Your task to perform on an android device: turn off location history Image 0: 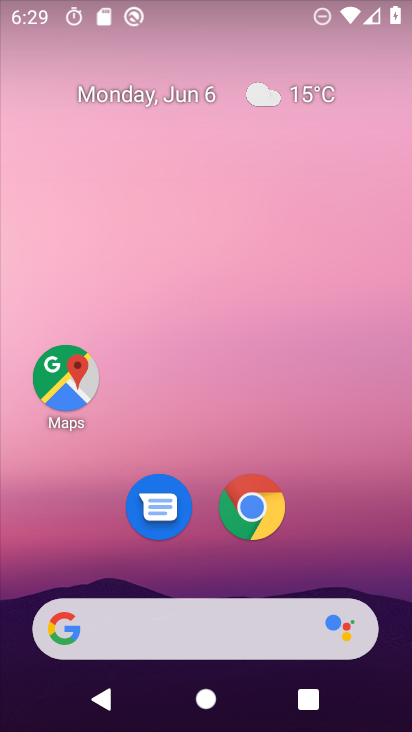
Step 0: drag from (192, 568) to (255, 2)
Your task to perform on an android device: turn off location history Image 1: 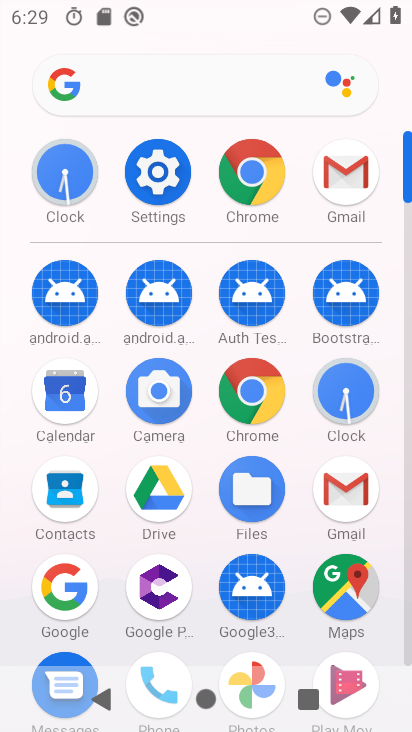
Step 1: click (168, 178)
Your task to perform on an android device: turn off location history Image 2: 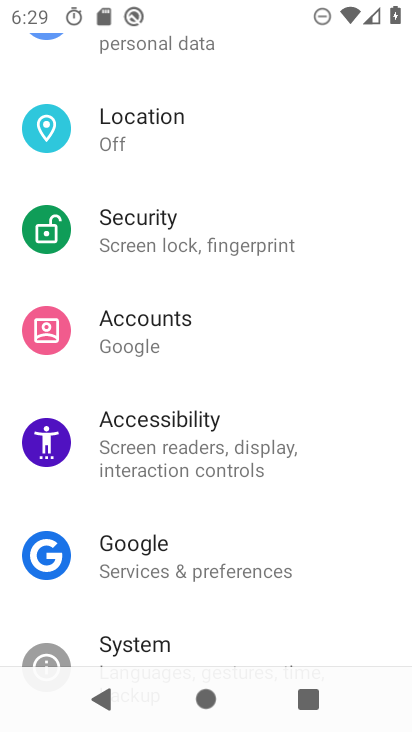
Step 2: click (133, 144)
Your task to perform on an android device: turn off location history Image 3: 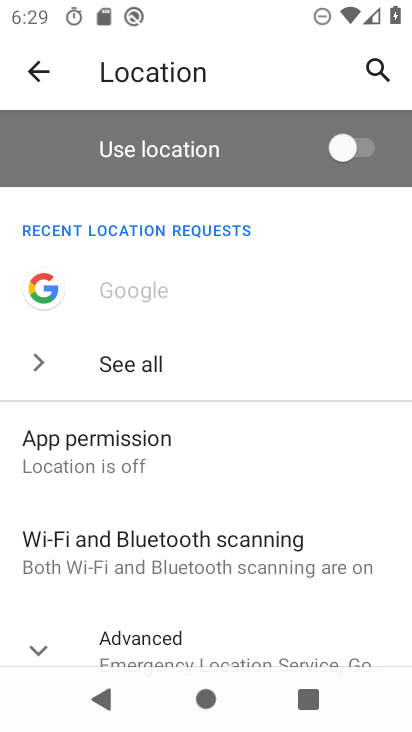
Step 3: click (121, 646)
Your task to perform on an android device: turn off location history Image 4: 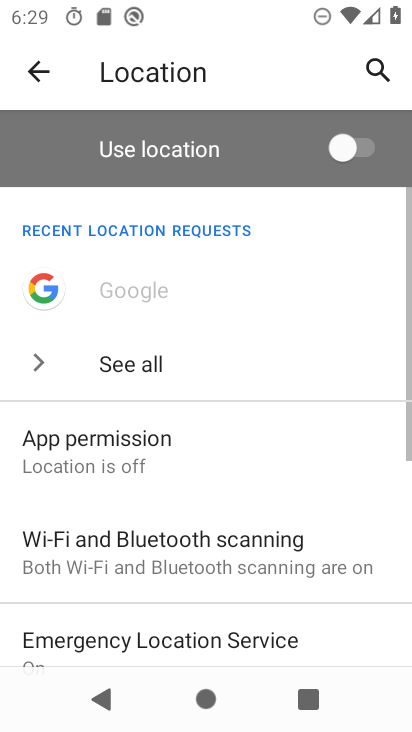
Step 4: drag from (206, 636) to (208, 142)
Your task to perform on an android device: turn off location history Image 5: 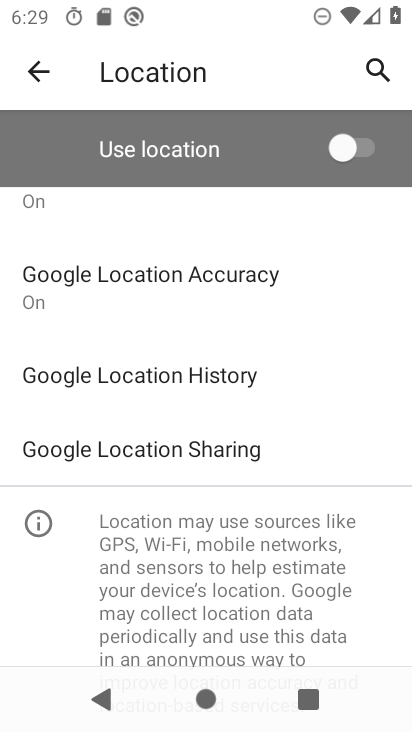
Step 5: click (170, 383)
Your task to perform on an android device: turn off location history Image 6: 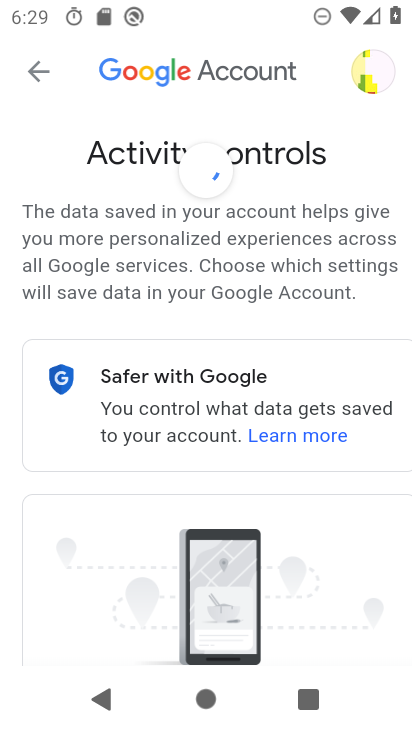
Step 6: task complete